Your task to perform on an android device: Open the web browser Image 0: 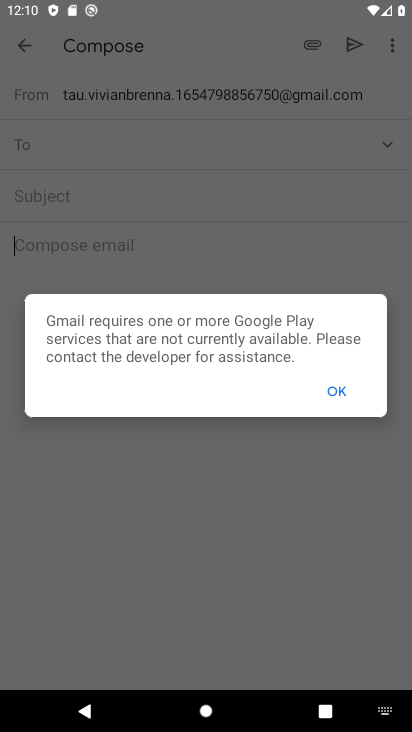
Step 0: press home button
Your task to perform on an android device: Open the web browser Image 1: 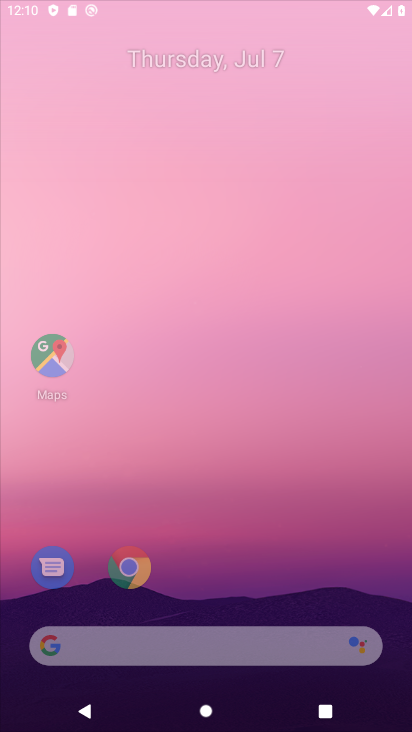
Step 1: drag from (218, 585) to (277, 113)
Your task to perform on an android device: Open the web browser Image 2: 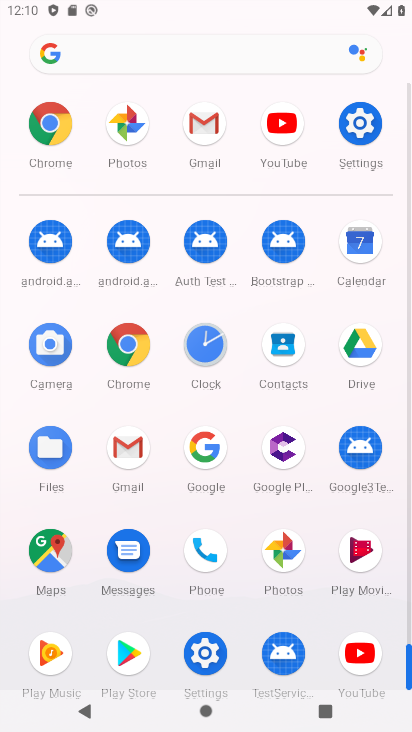
Step 2: click (204, 445)
Your task to perform on an android device: Open the web browser Image 3: 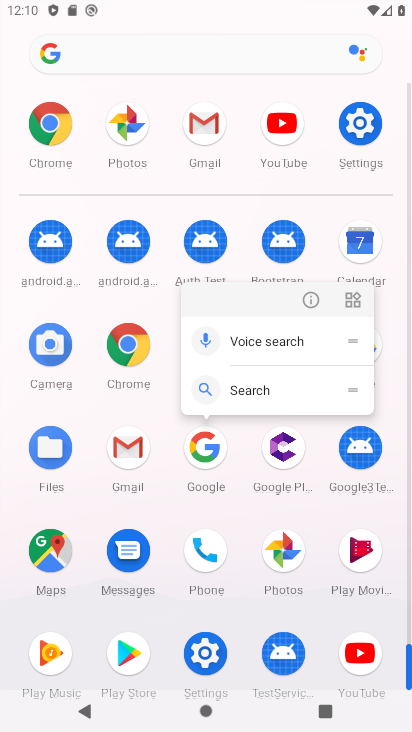
Step 3: click (314, 296)
Your task to perform on an android device: Open the web browser Image 4: 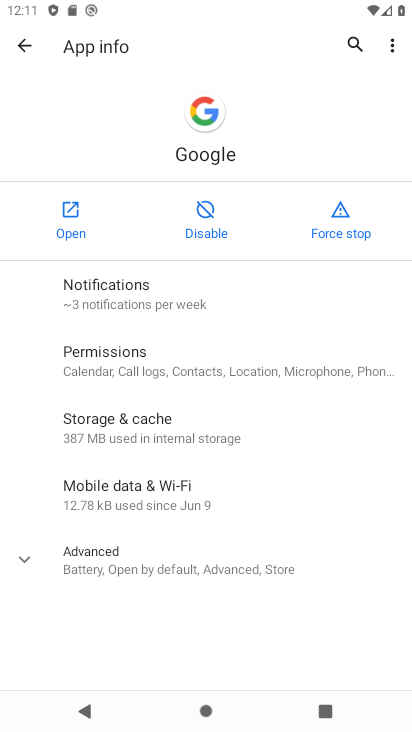
Step 4: click (76, 224)
Your task to perform on an android device: Open the web browser Image 5: 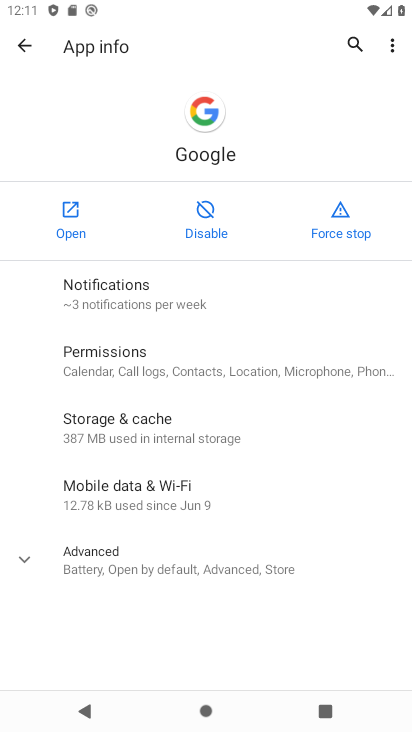
Step 5: click (76, 224)
Your task to perform on an android device: Open the web browser Image 6: 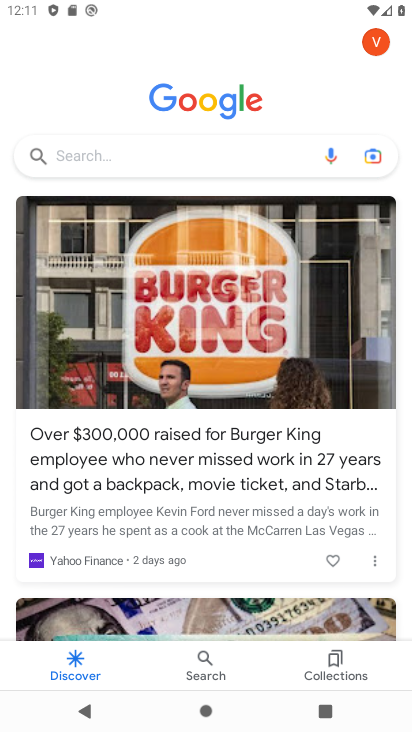
Step 6: task complete